Your task to perform on an android device: turn on showing notifications on the lock screen Image 0: 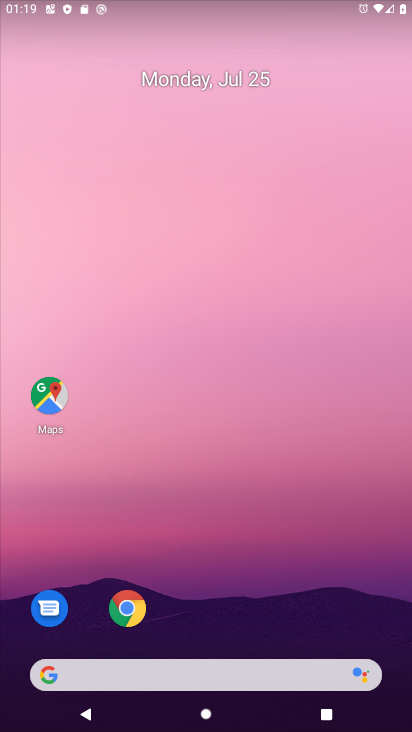
Step 0: drag from (226, 633) to (177, 59)
Your task to perform on an android device: turn on showing notifications on the lock screen Image 1: 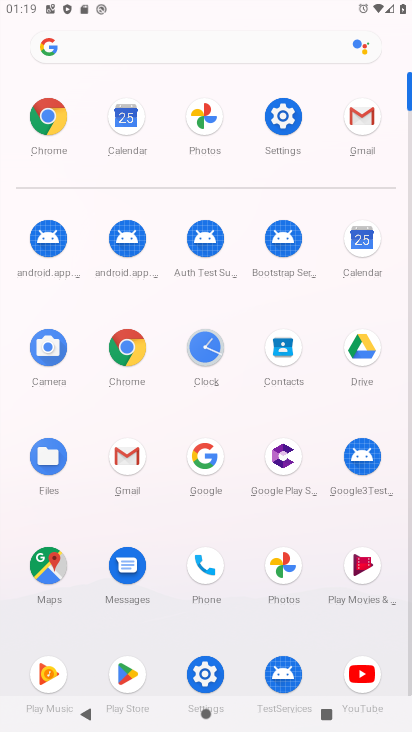
Step 1: click (268, 104)
Your task to perform on an android device: turn on showing notifications on the lock screen Image 2: 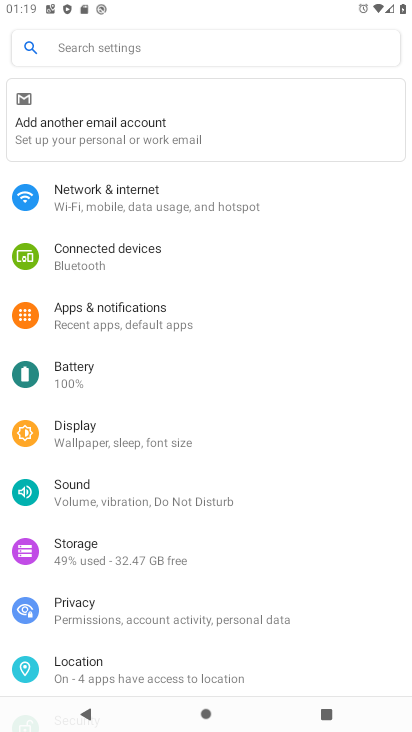
Step 2: drag from (169, 489) to (155, 363)
Your task to perform on an android device: turn on showing notifications on the lock screen Image 3: 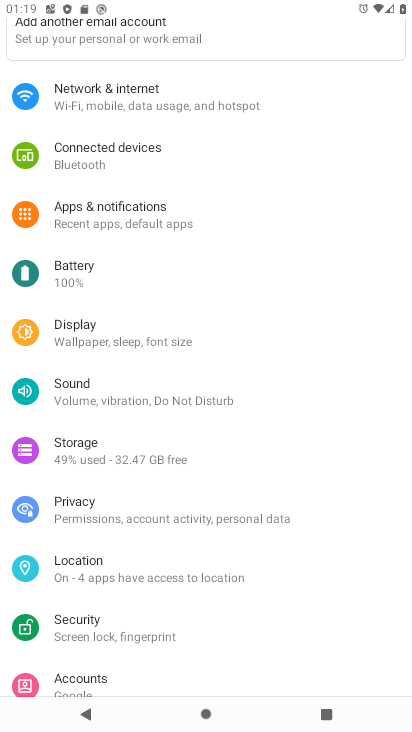
Step 3: click (149, 218)
Your task to perform on an android device: turn on showing notifications on the lock screen Image 4: 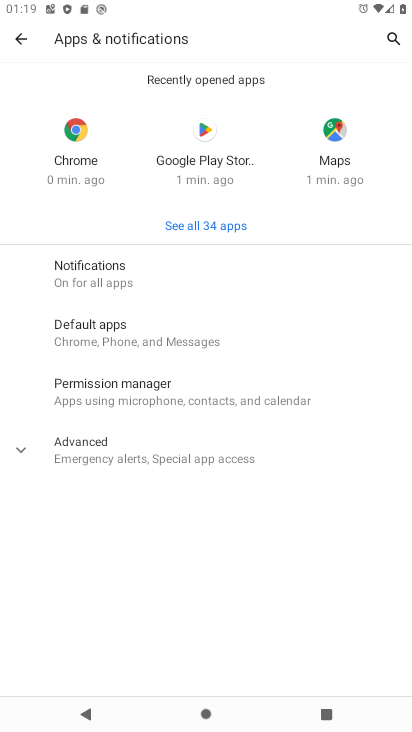
Step 4: click (102, 458)
Your task to perform on an android device: turn on showing notifications on the lock screen Image 5: 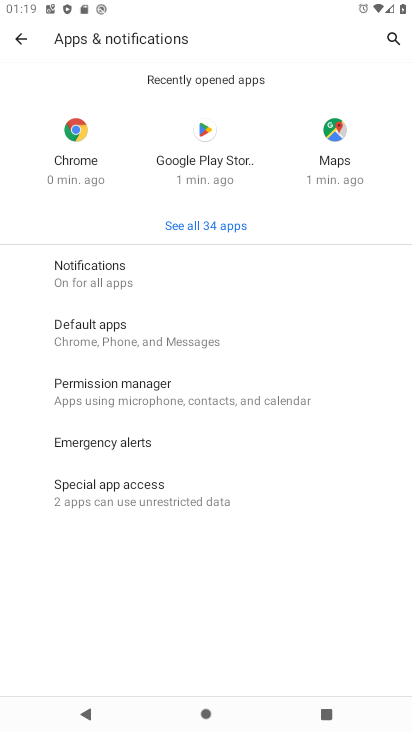
Step 5: click (120, 265)
Your task to perform on an android device: turn on showing notifications on the lock screen Image 6: 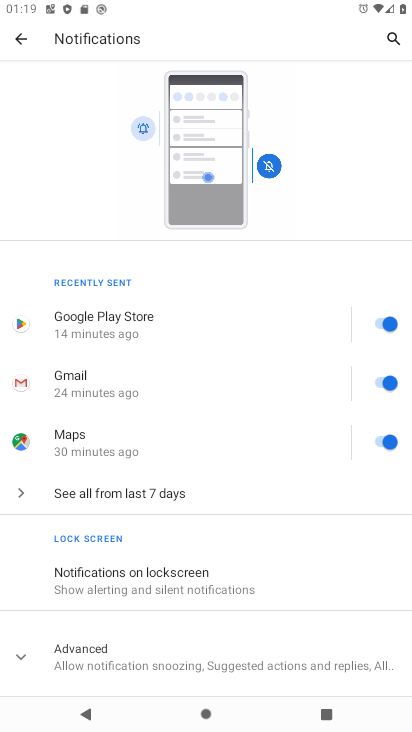
Step 6: click (151, 591)
Your task to perform on an android device: turn on showing notifications on the lock screen Image 7: 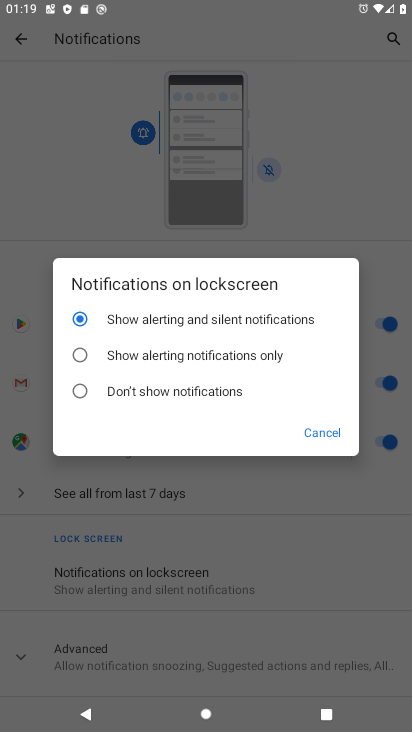
Step 7: click (131, 325)
Your task to perform on an android device: turn on showing notifications on the lock screen Image 8: 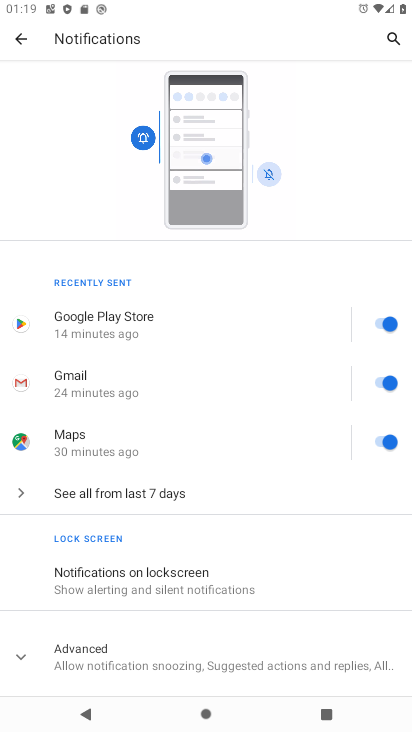
Step 8: task complete